Your task to perform on an android device: turn on wifi Image 0: 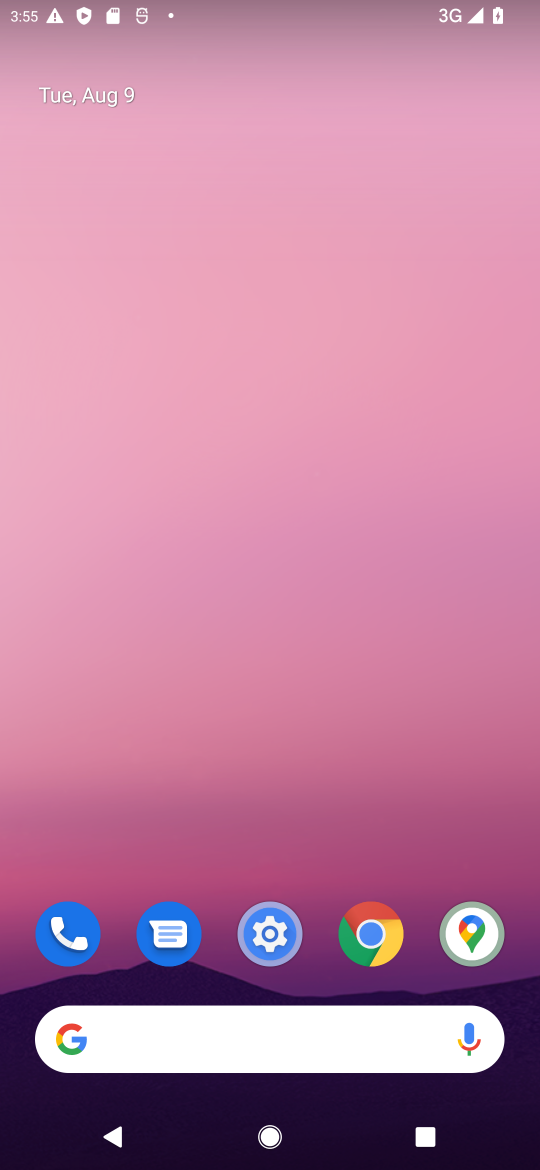
Step 0: click (254, 954)
Your task to perform on an android device: turn on wifi Image 1: 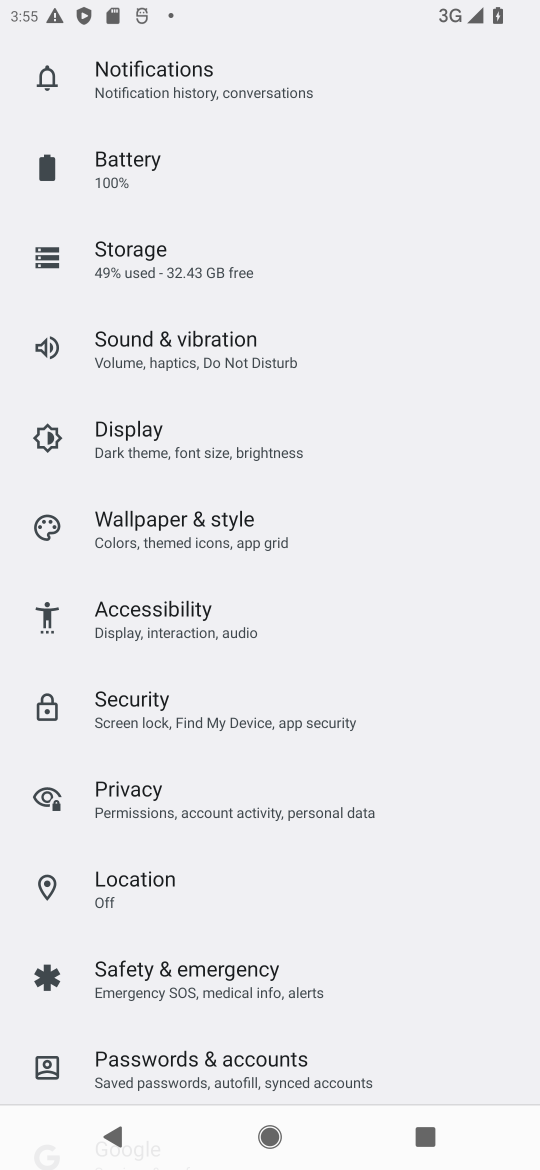
Step 1: drag from (219, 156) to (200, 986)
Your task to perform on an android device: turn on wifi Image 2: 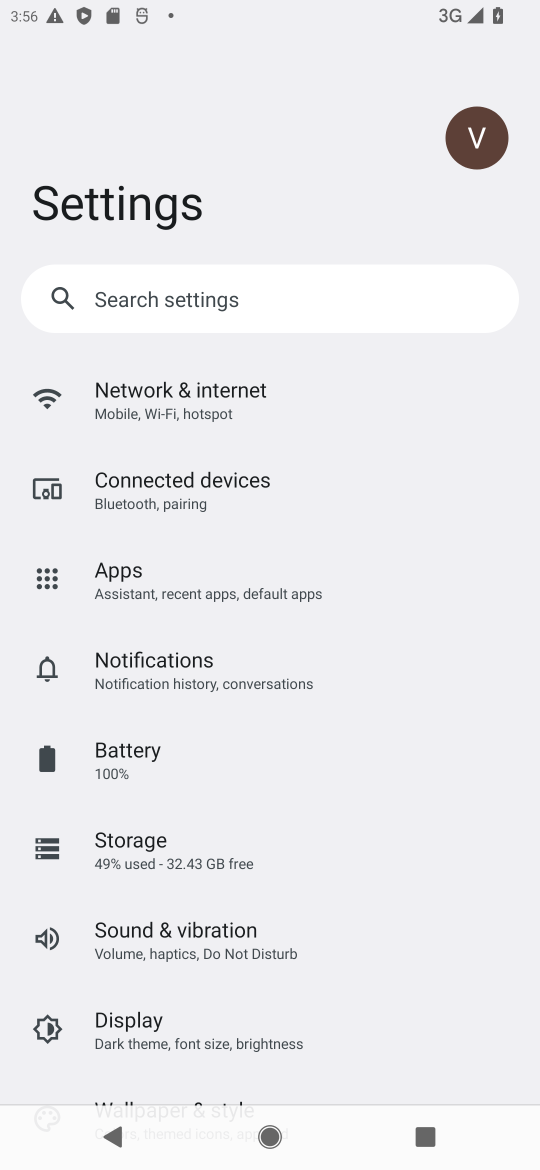
Step 2: click (240, 428)
Your task to perform on an android device: turn on wifi Image 3: 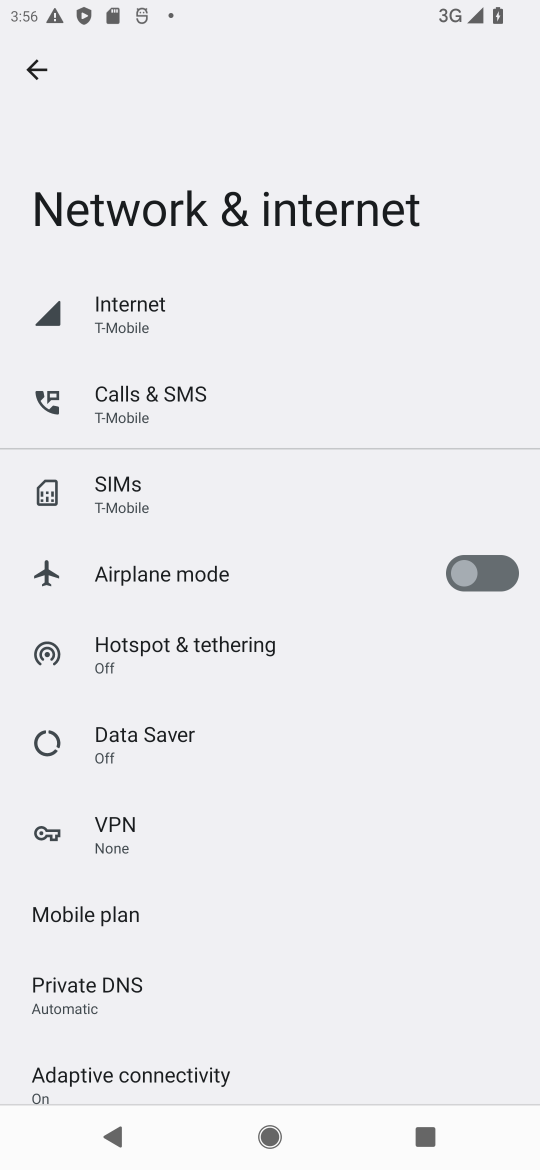
Step 3: click (220, 344)
Your task to perform on an android device: turn on wifi Image 4: 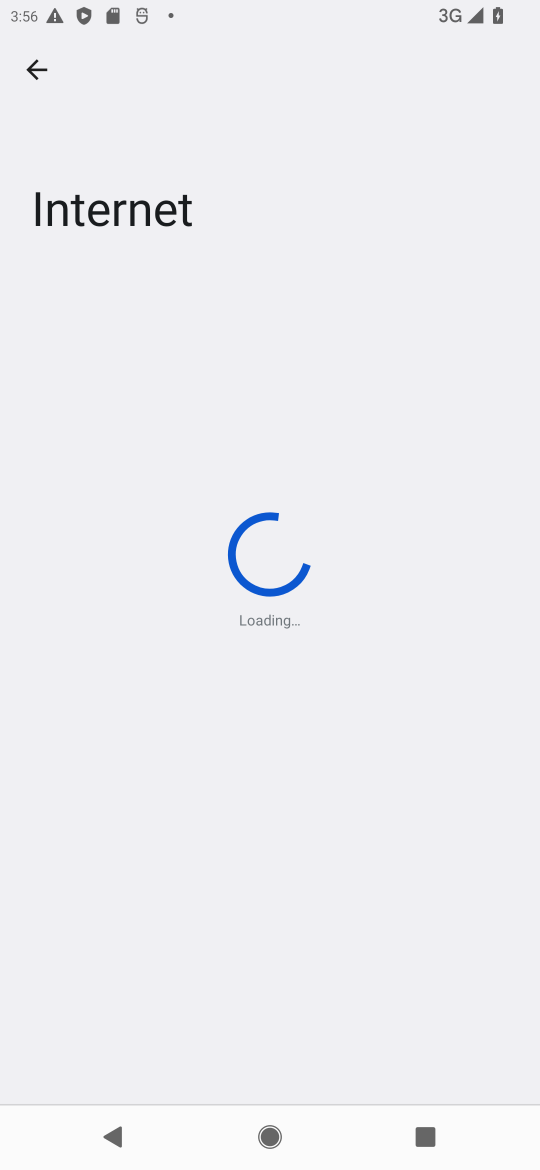
Step 4: task complete